Your task to perform on an android device: change alarm snooze length Image 0: 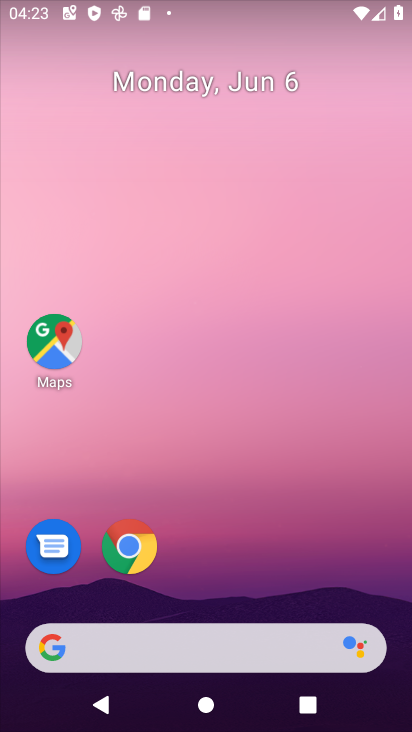
Step 0: drag from (228, 592) to (232, 76)
Your task to perform on an android device: change alarm snooze length Image 1: 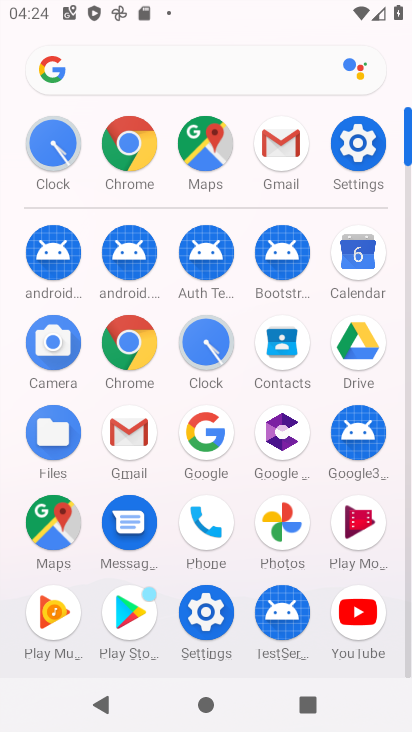
Step 1: click (362, 184)
Your task to perform on an android device: change alarm snooze length Image 2: 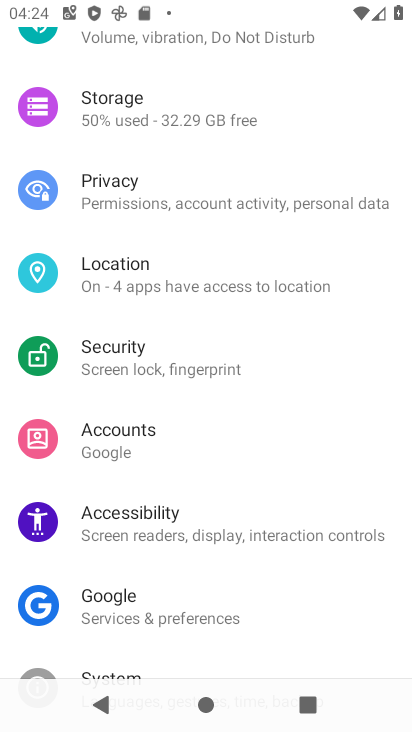
Step 2: press home button
Your task to perform on an android device: change alarm snooze length Image 3: 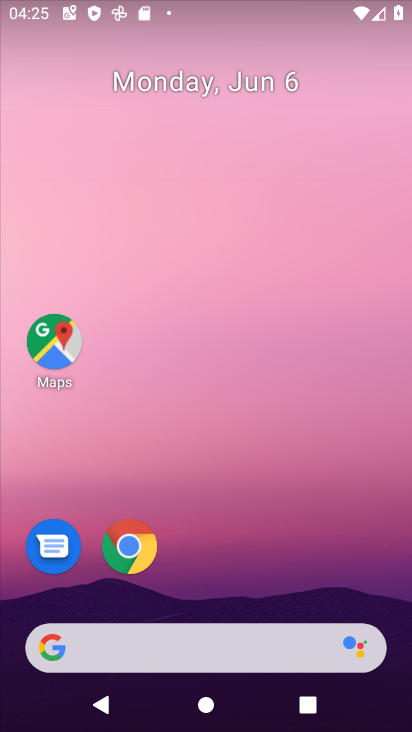
Step 3: drag from (280, 570) to (275, 68)
Your task to perform on an android device: change alarm snooze length Image 4: 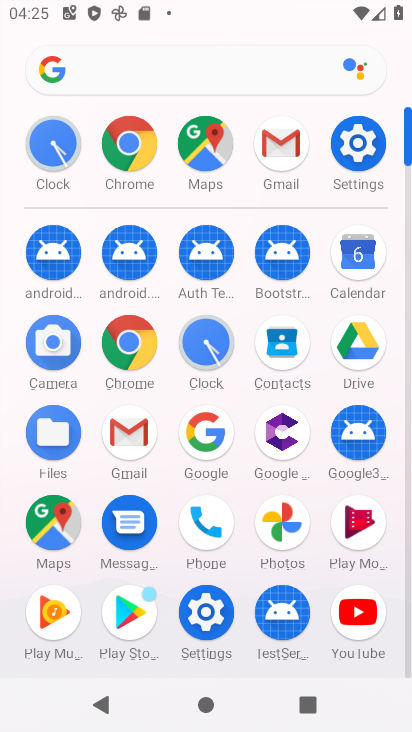
Step 4: click (227, 353)
Your task to perform on an android device: change alarm snooze length Image 5: 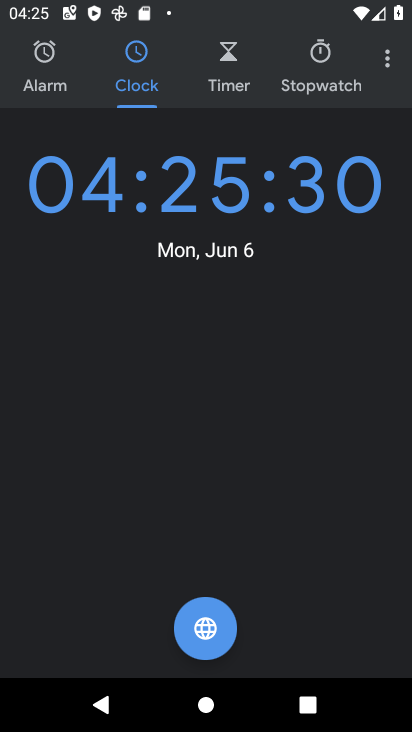
Step 5: click (379, 71)
Your task to perform on an android device: change alarm snooze length Image 6: 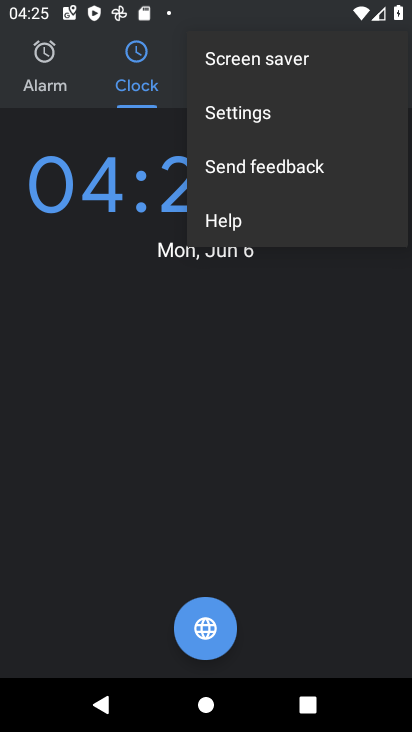
Step 6: click (266, 117)
Your task to perform on an android device: change alarm snooze length Image 7: 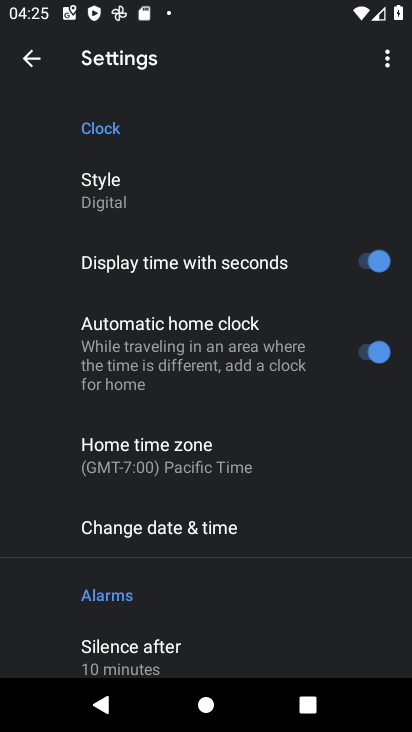
Step 7: task complete